Your task to perform on an android device: When is my next meeting? Image 0: 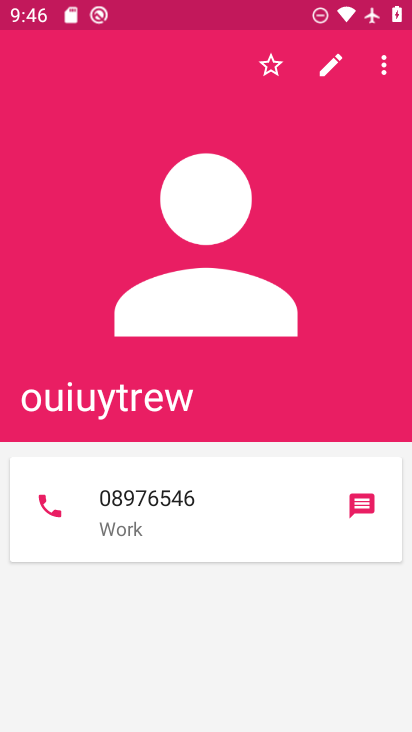
Step 0: press home button
Your task to perform on an android device: When is my next meeting? Image 1: 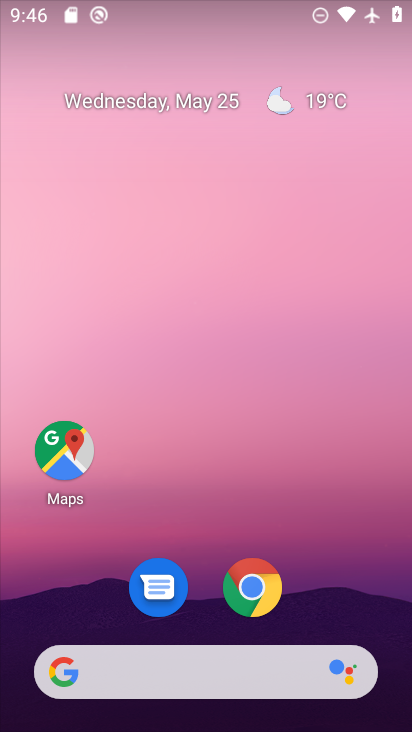
Step 1: drag from (387, 622) to (327, 139)
Your task to perform on an android device: When is my next meeting? Image 2: 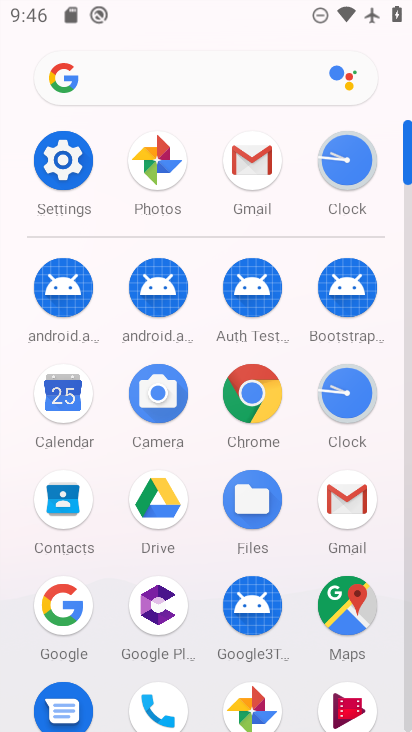
Step 2: click (410, 705)
Your task to perform on an android device: When is my next meeting? Image 3: 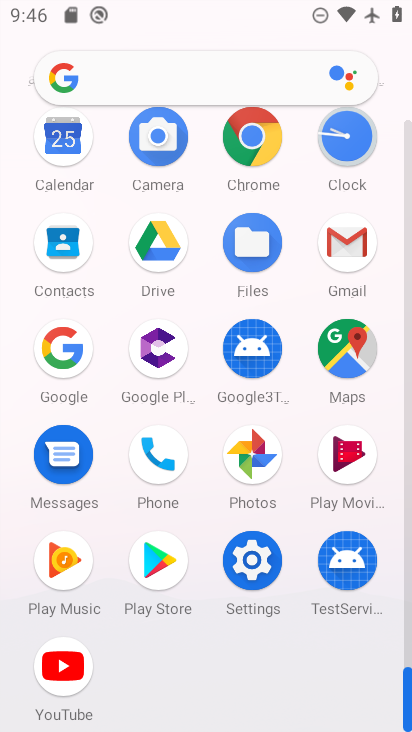
Step 3: click (61, 135)
Your task to perform on an android device: When is my next meeting? Image 4: 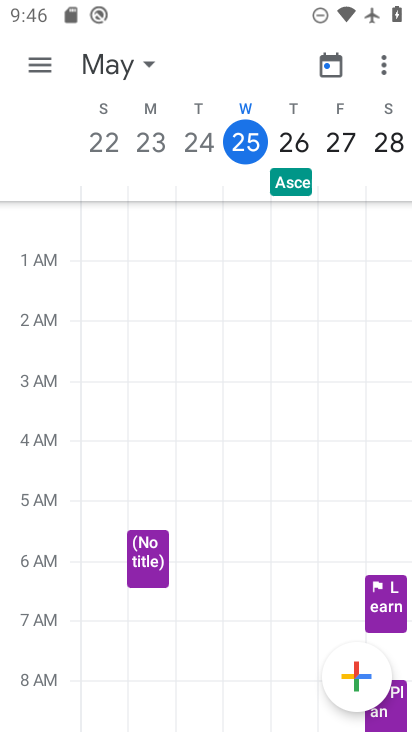
Step 4: click (37, 57)
Your task to perform on an android device: When is my next meeting? Image 5: 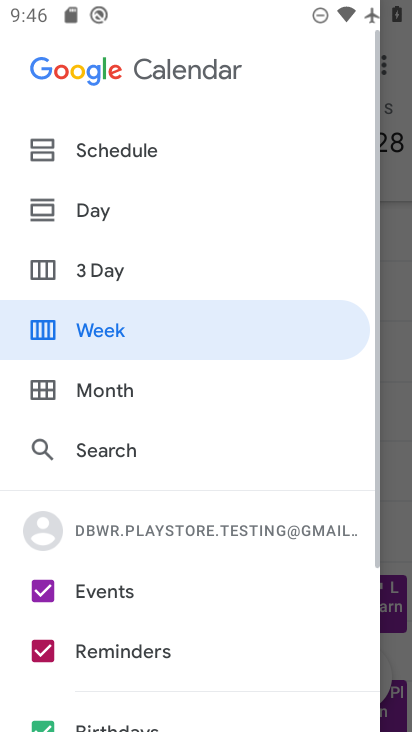
Step 5: click (102, 148)
Your task to perform on an android device: When is my next meeting? Image 6: 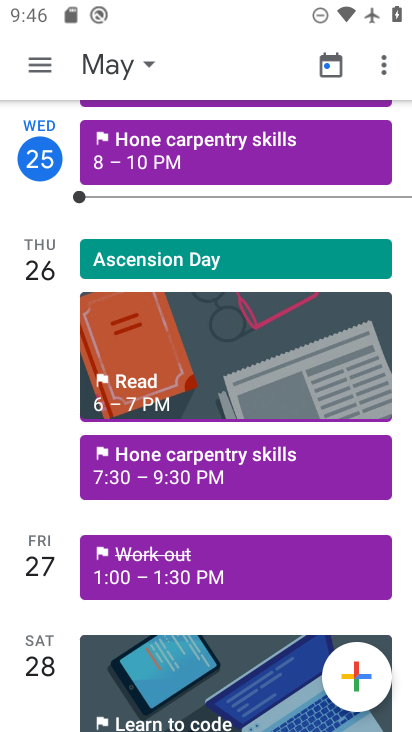
Step 6: task complete